Your task to perform on an android device: see sites visited before in the chrome app Image 0: 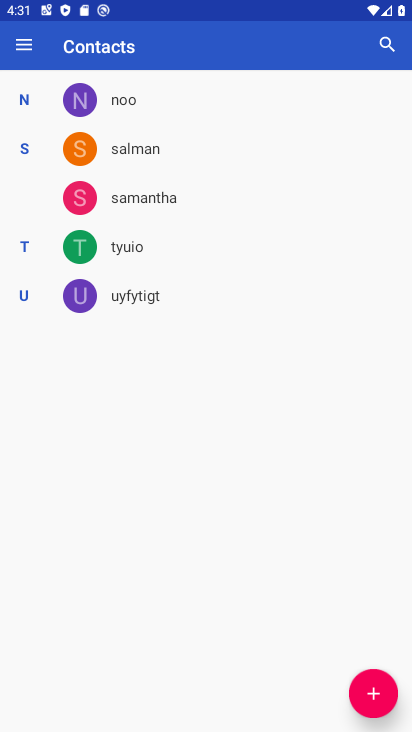
Step 0: press home button
Your task to perform on an android device: see sites visited before in the chrome app Image 1: 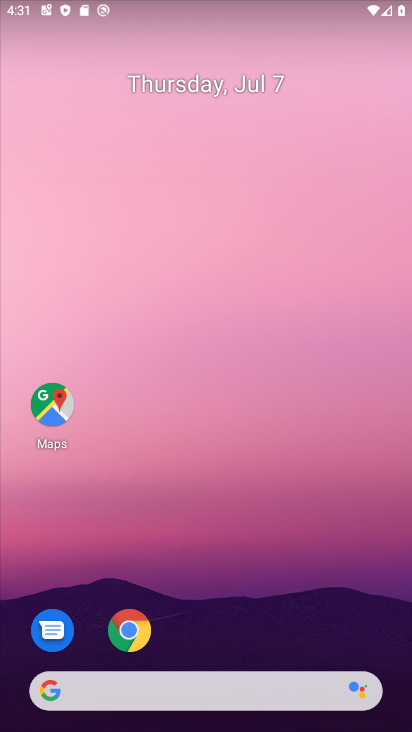
Step 1: click (129, 640)
Your task to perform on an android device: see sites visited before in the chrome app Image 2: 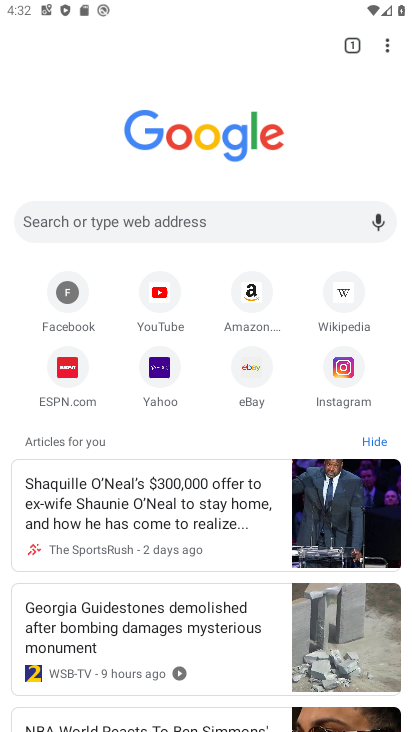
Step 2: click (398, 46)
Your task to perform on an android device: see sites visited before in the chrome app Image 3: 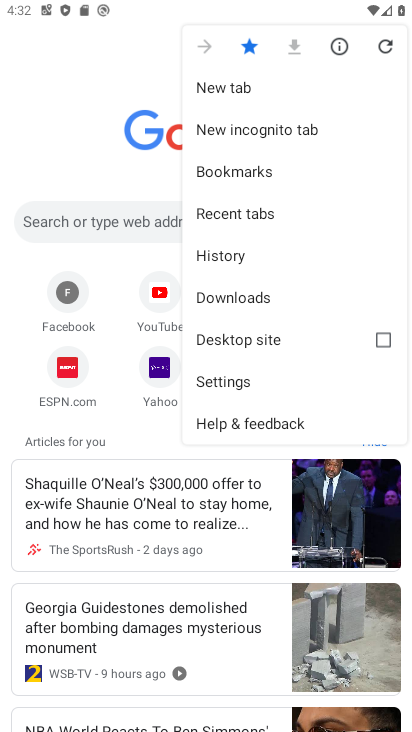
Step 3: click (384, 46)
Your task to perform on an android device: see sites visited before in the chrome app Image 4: 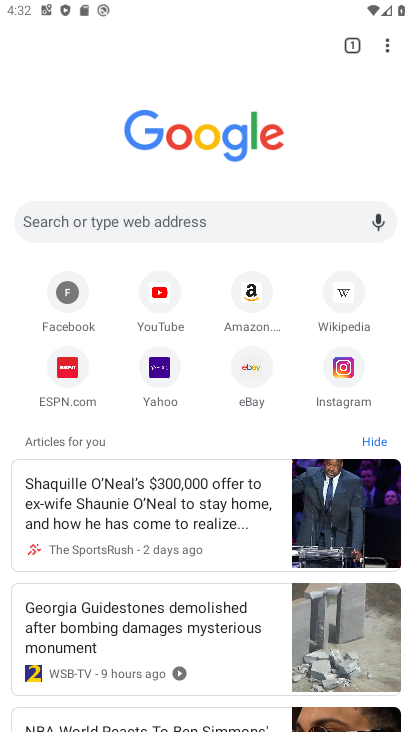
Step 4: click (382, 47)
Your task to perform on an android device: see sites visited before in the chrome app Image 5: 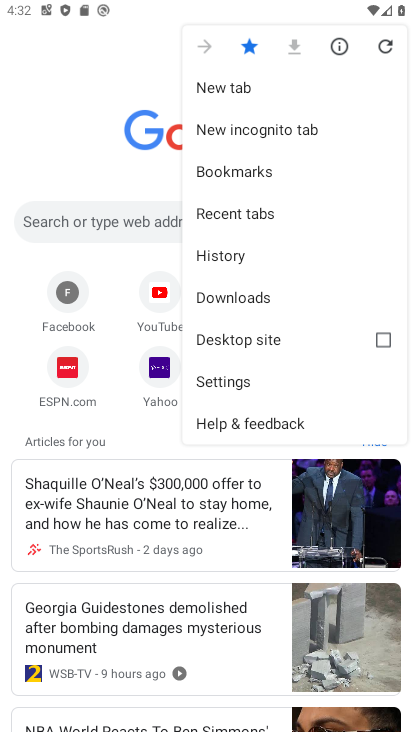
Step 5: click (232, 250)
Your task to perform on an android device: see sites visited before in the chrome app Image 6: 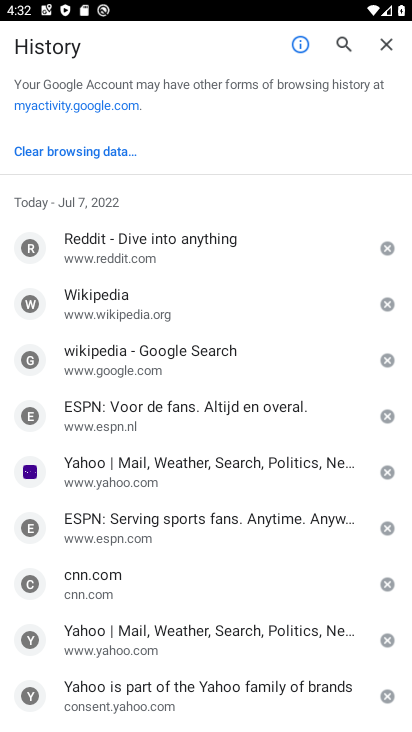
Step 6: task complete